Your task to perform on an android device: turn on sleep mode Image 0: 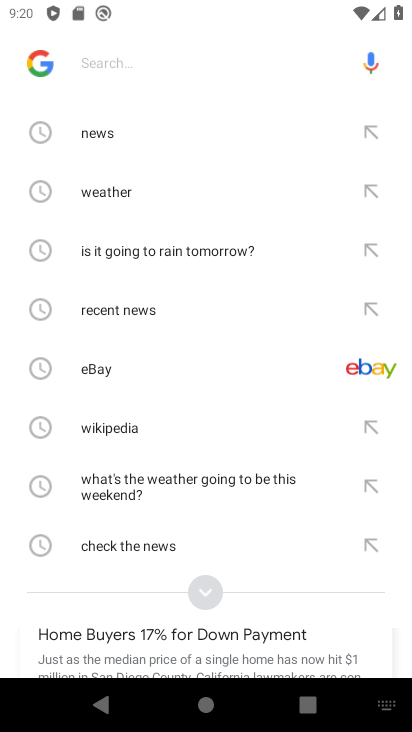
Step 0: press back button
Your task to perform on an android device: turn on sleep mode Image 1: 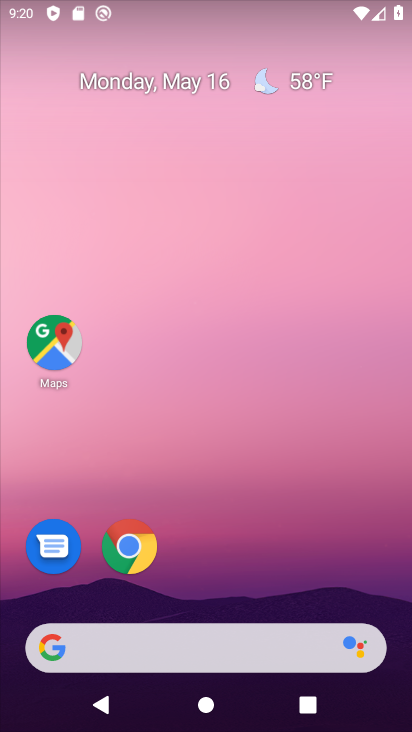
Step 1: drag from (277, 585) to (225, 141)
Your task to perform on an android device: turn on sleep mode Image 2: 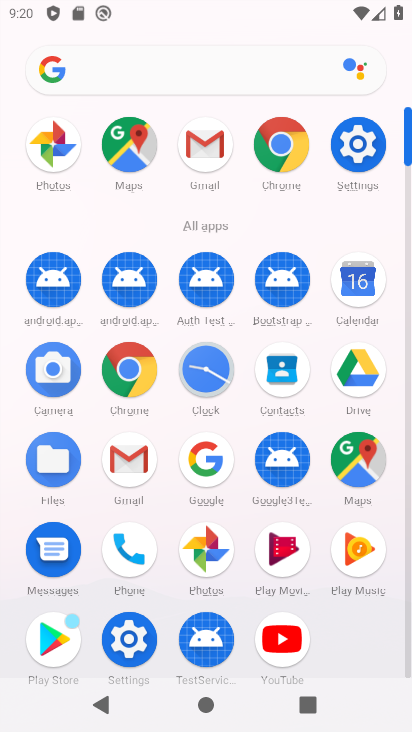
Step 2: click (358, 145)
Your task to perform on an android device: turn on sleep mode Image 3: 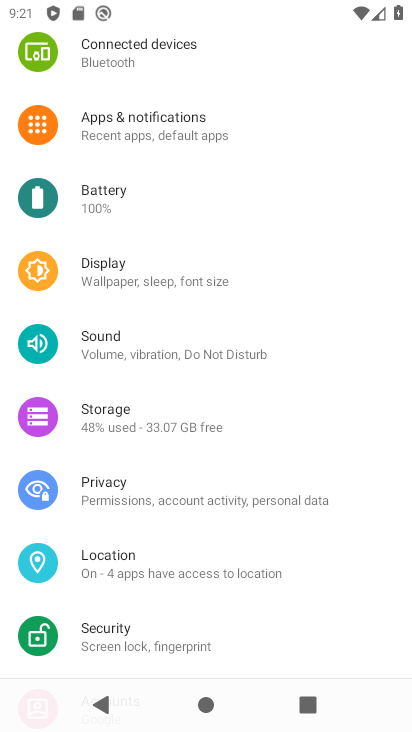
Step 3: drag from (205, 210) to (240, 311)
Your task to perform on an android device: turn on sleep mode Image 4: 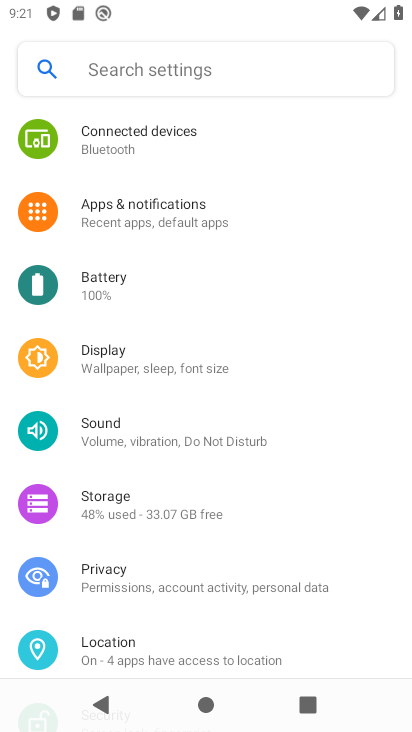
Step 4: drag from (240, 184) to (264, 292)
Your task to perform on an android device: turn on sleep mode Image 5: 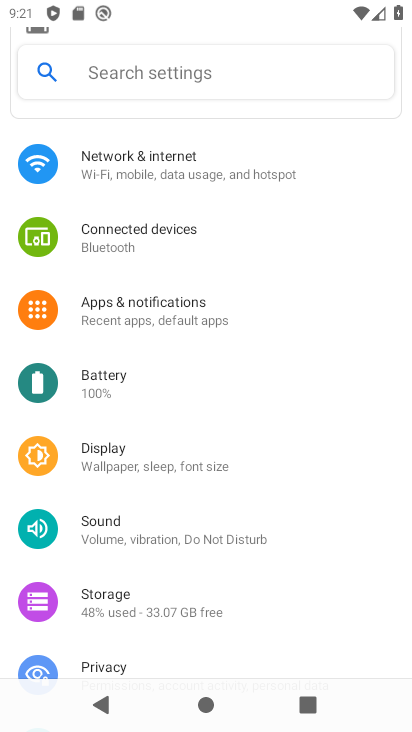
Step 5: drag from (147, 423) to (180, 369)
Your task to perform on an android device: turn on sleep mode Image 6: 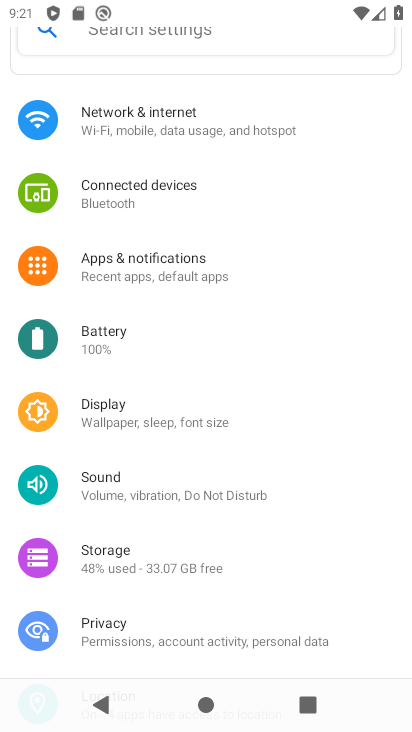
Step 6: click (125, 420)
Your task to perform on an android device: turn on sleep mode Image 7: 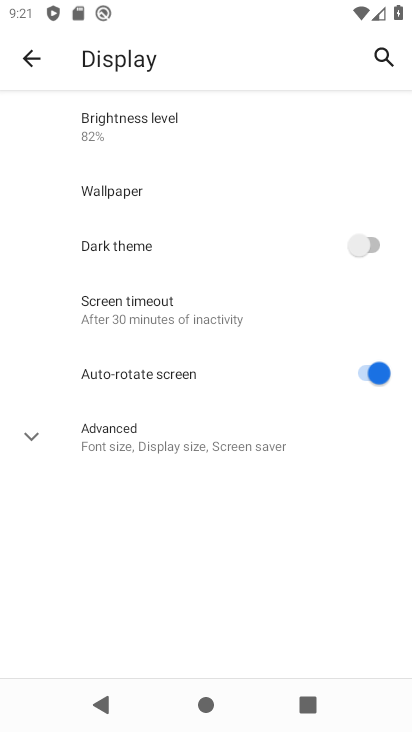
Step 7: click (155, 314)
Your task to perform on an android device: turn on sleep mode Image 8: 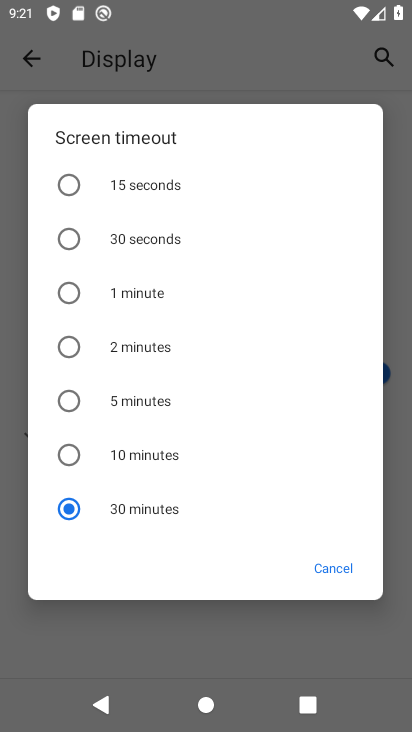
Step 8: click (328, 560)
Your task to perform on an android device: turn on sleep mode Image 9: 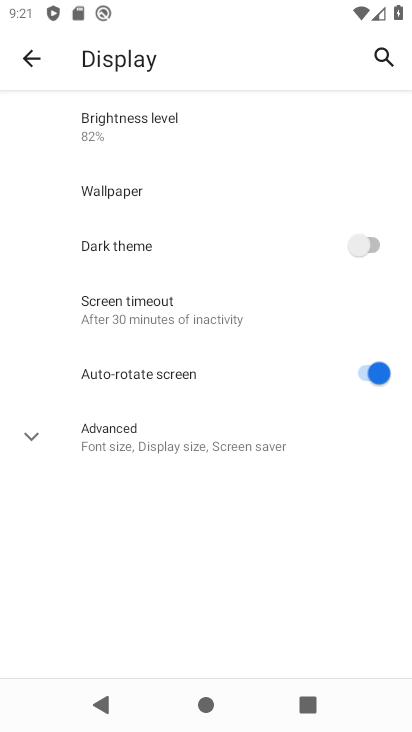
Step 9: task complete